Your task to perform on an android device: set the timer Image 0: 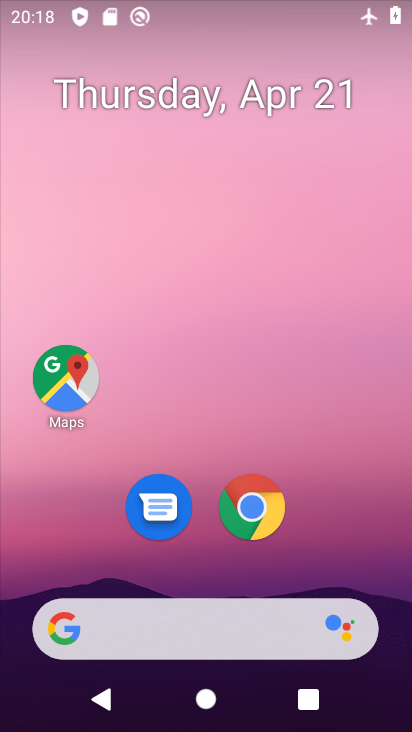
Step 0: click (248, 500)
Your task to perform on an android device: set the timer Image 1: 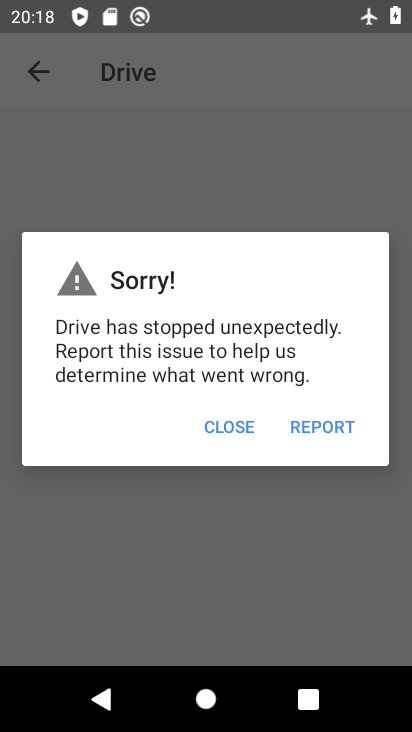
Step 1: press back button
Your task to perform on an android device: set the timer Image 2: 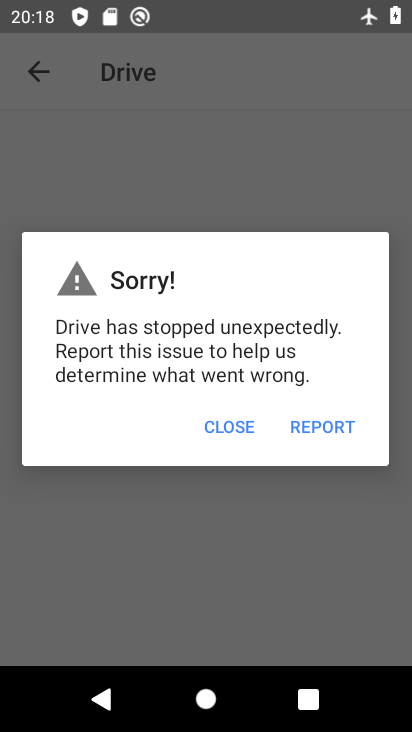
Step 2: press back button
Your task to perform on an android device: set the timer Image 3: 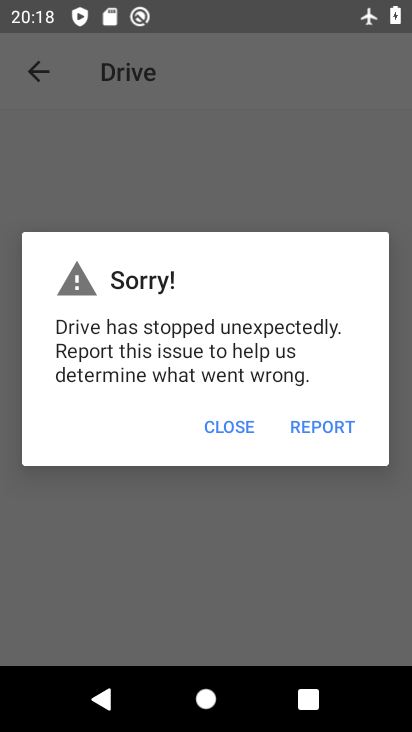
Step 3: press back button
Your task to perform on an android device: set the timer Image 4: 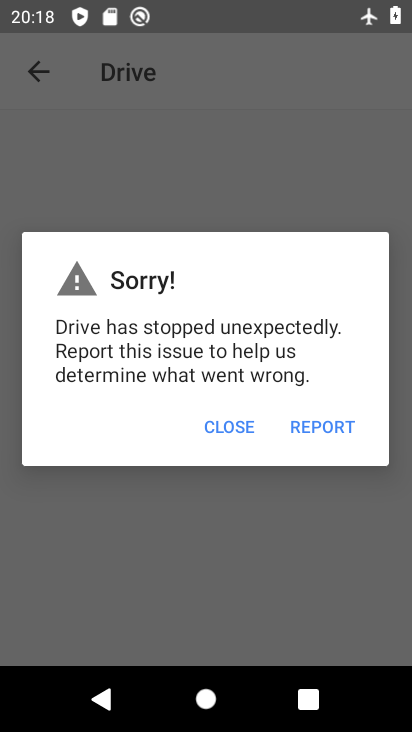
Step 4: press home button
Your task to perform on an android device: set the timer Image 5: 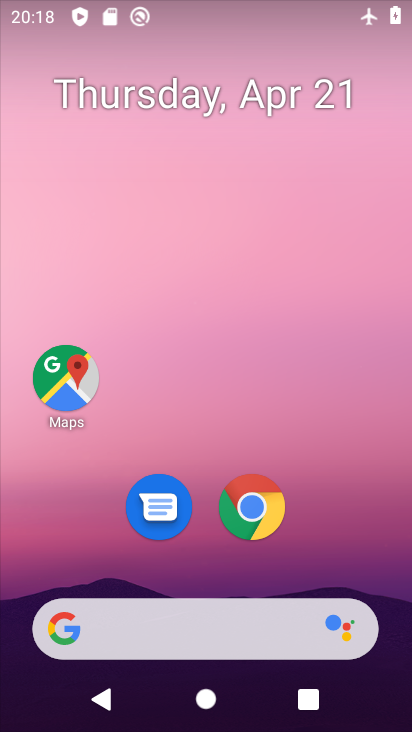
Step 5: drag from (207, 498) to (326, 24)
Your task to perform on an android device: set the timer Image 6: 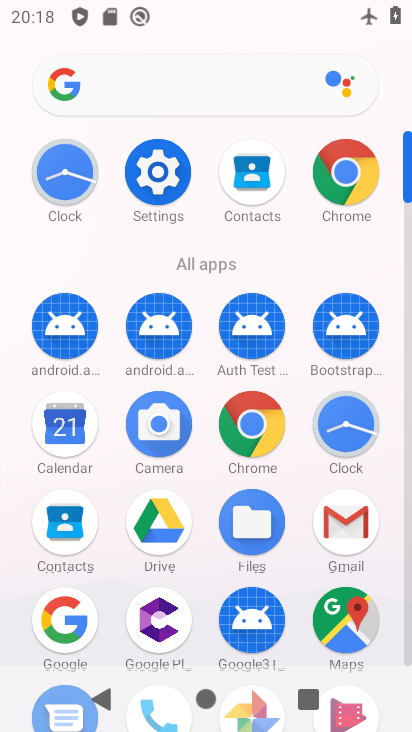
Step 6: click (348, 429)
Your task to perform on an android device: set the timer Image 7: 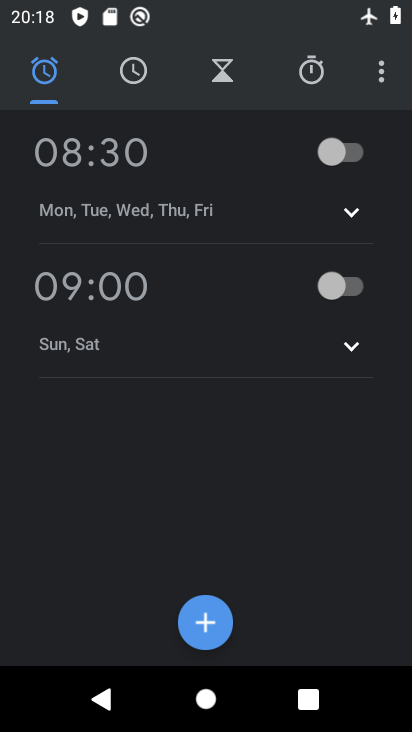
Step 7: click (236, 79)
Your task to perform on an android device: set the timer Image 8: 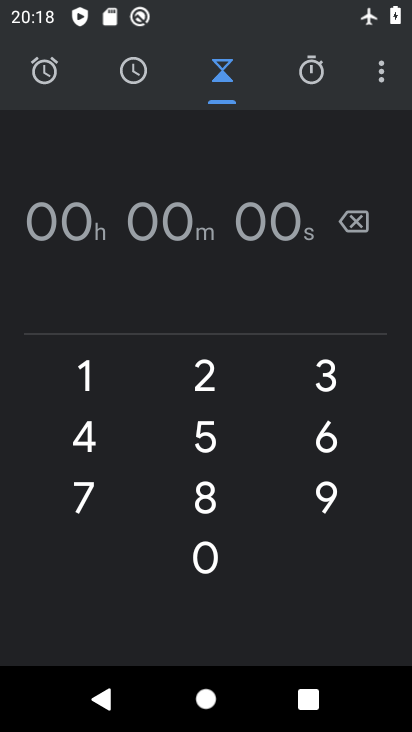
Step 8: click (202, 358)
Your task to perform on an android device: set the timer Image 9: 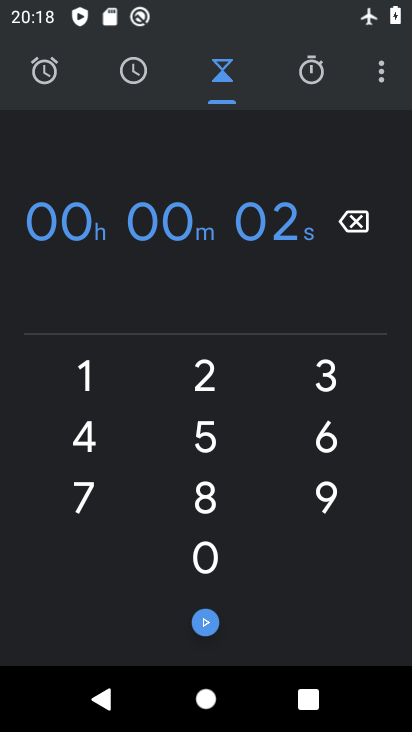
Step 9: click (346, 367)
Your task to perform on an android device: set the timer Image 10: 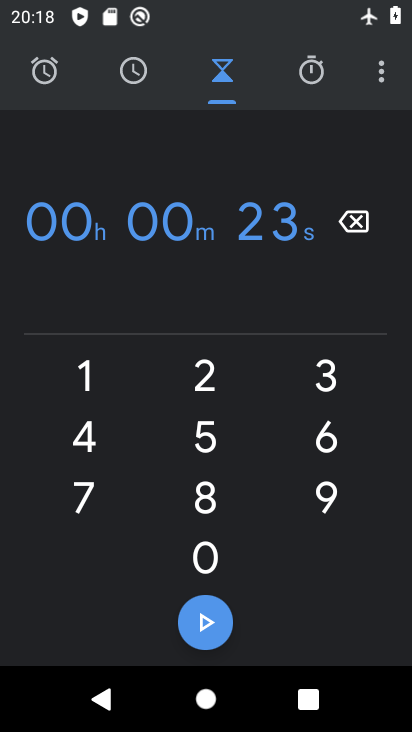
Step 10: click (219, 441)
Your task to perform on an android device: set the timer Image 11: 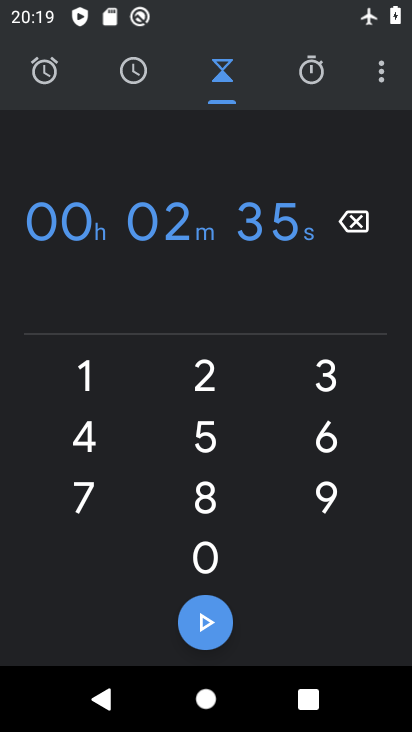
Step 11: click (202, 377)
Your task to perform on an android device: set the timer Image 12: 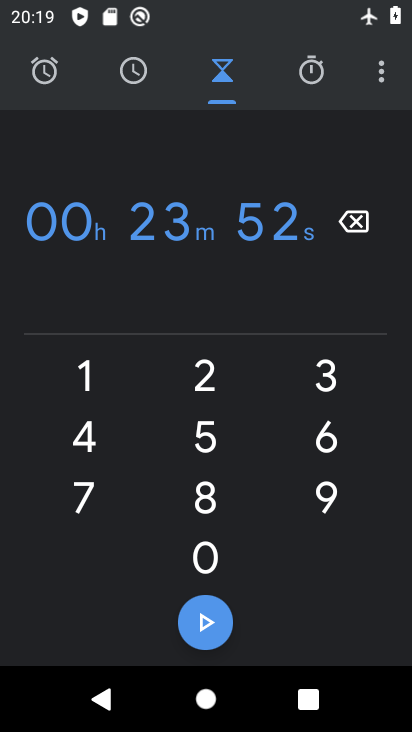
Step 12: click (212, 631)
Your task to perform on an android device: set the timer Image 13: 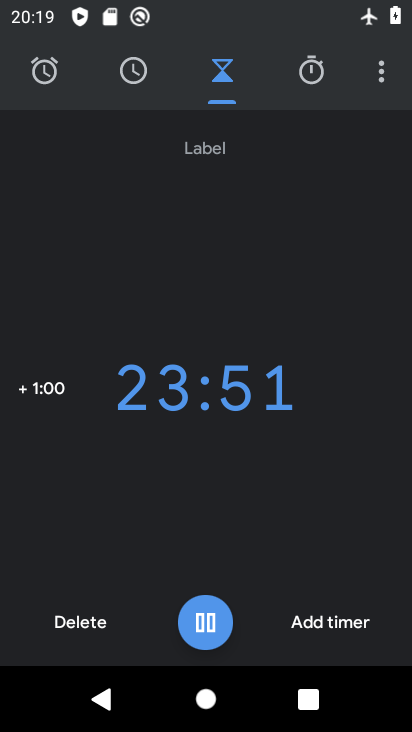
Step 13: task complete